Your task to perform on an android device: Is it going to rain this weekend? Image 0: 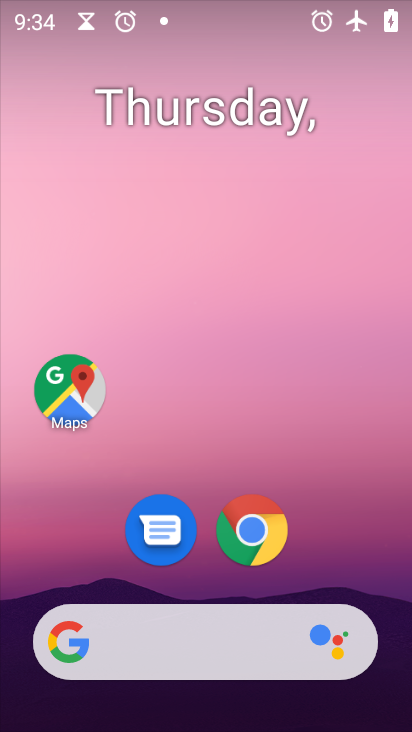
Step 0: drag from (325, 582) to (211, 10)
Your task to perform on an android device: Is it going to rain this weekend? Image 1: 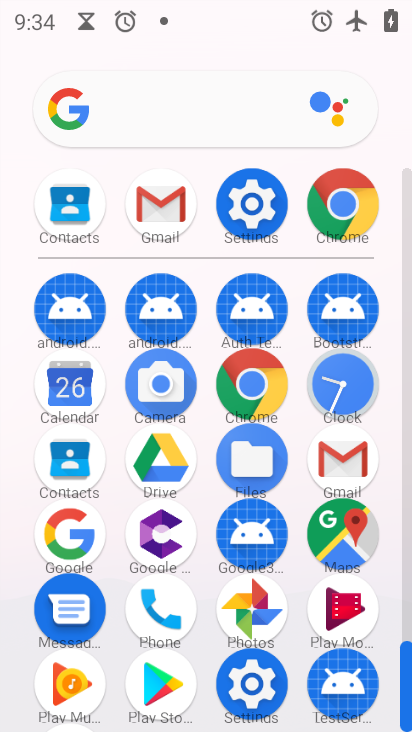
Step 1: drag from (14, 589) to (25, 242)
Your task to perform on an android device: Is it going to rain this weekend? Image 2: 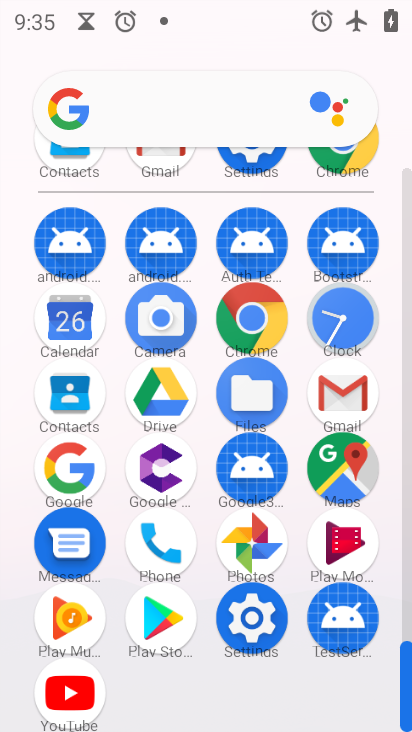
Step 2: click (247, 312)
Your task to perform on an android device: Is it going to rain this weekend? Image 3: 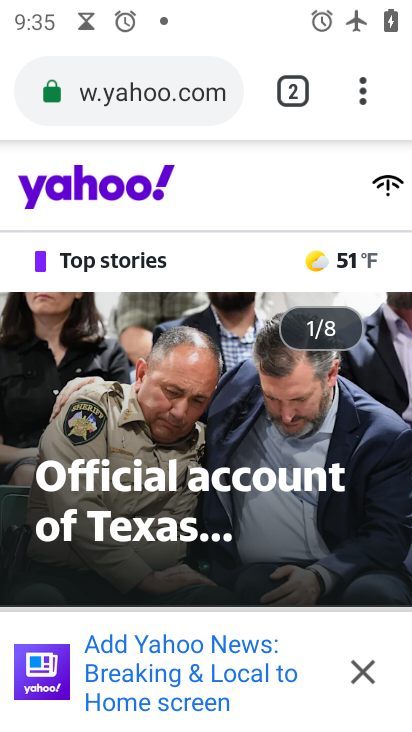
Step 3: click (147, 93)
Your task to perform on an android device: Is it going to rain this weekend? Image 4: 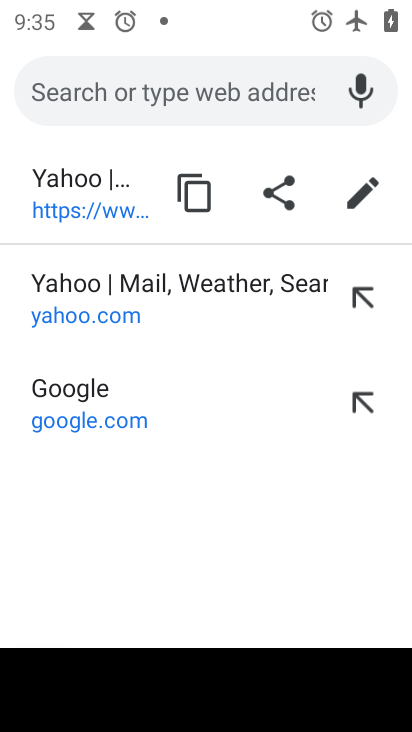
Step 4: type "Is it going to rain this weekend?"
Your task to perform on an android device: Is it going to rain this weekend? Image 5: 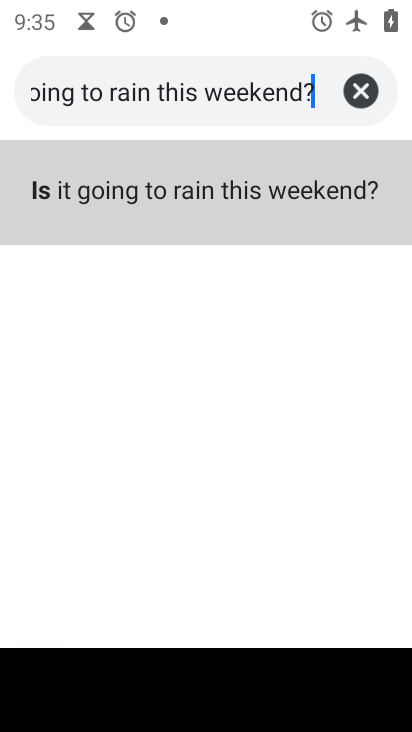
Step 5: type ""
Your task to perform on an android device: Is it going to rain this weekend? Image 6: 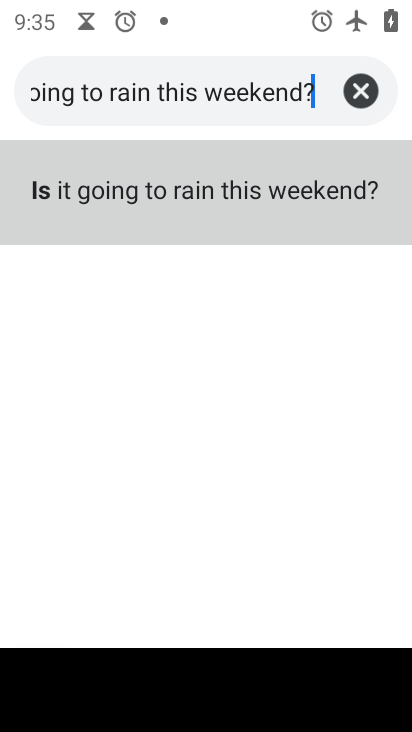
Step 6: click (127, 187)
Your task to perform on an android device: Is it going to rain this weekend? Image 7: 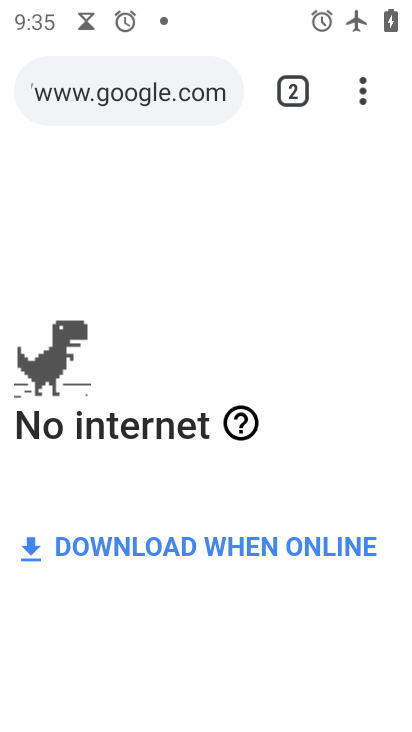
Step 7: task complete